Your task to perform on an android device: turn on data saver in the chrome app Image 0: 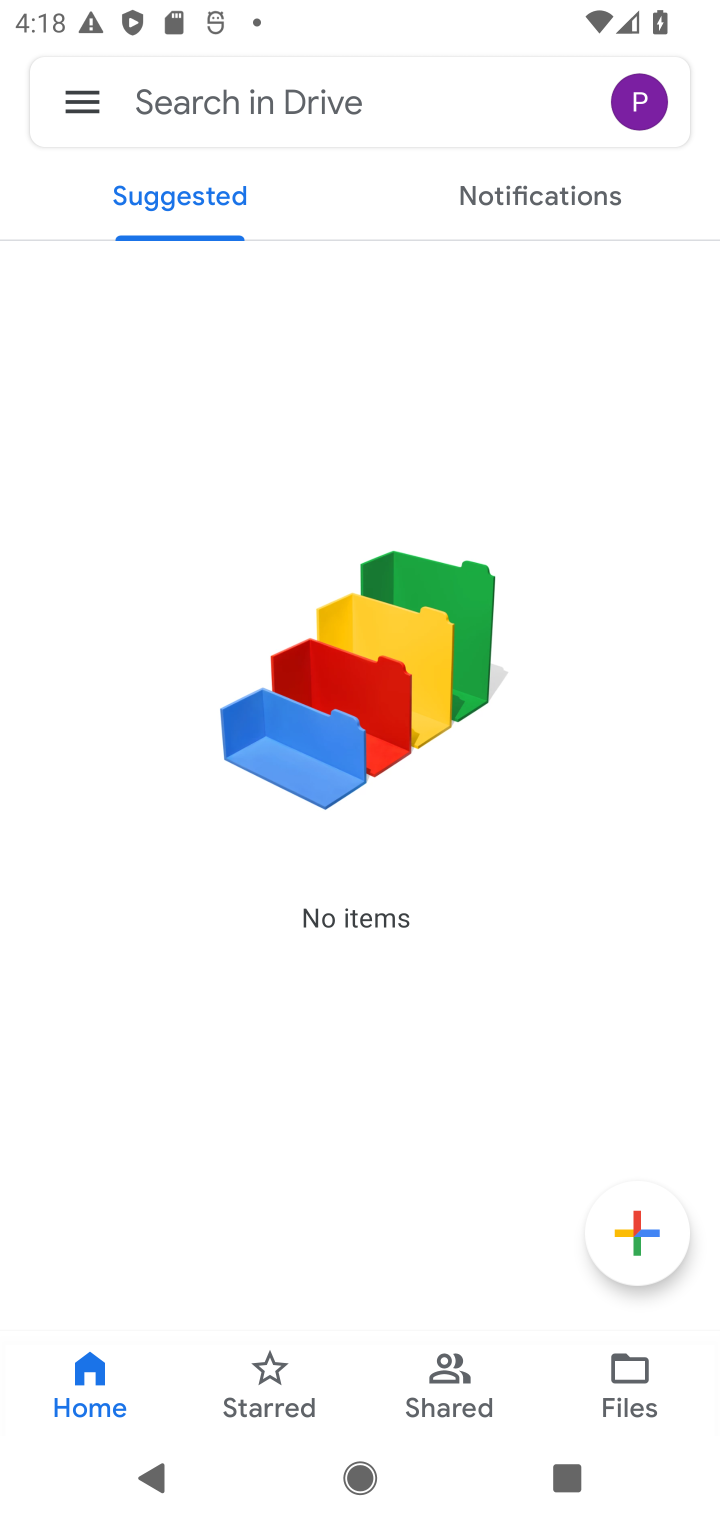
Step 0: press back button
Your task to perform on an android device: turn on data saver in the chrome app Image 1: 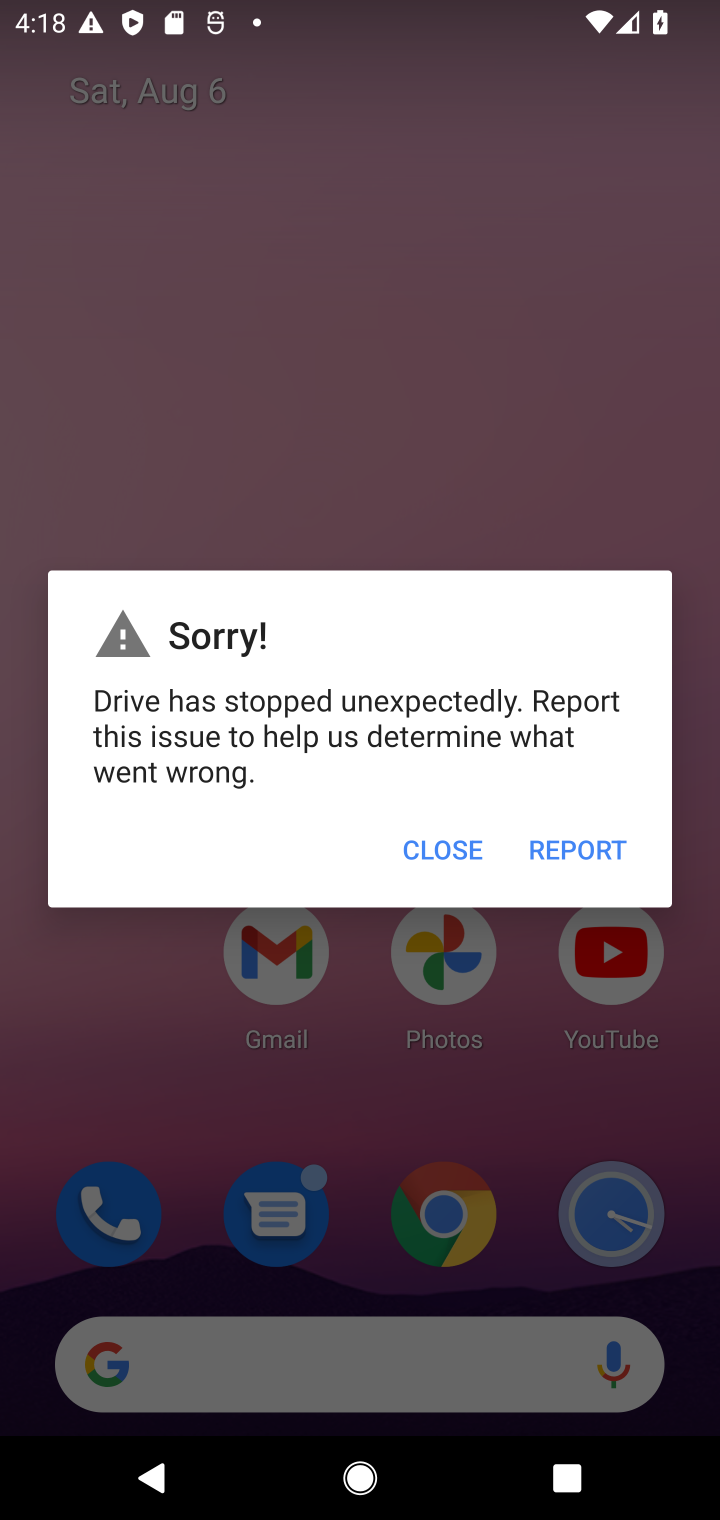
Step 1: press home button
Your task to perform on an android device: turn on data saver in the chrome app Image 2: 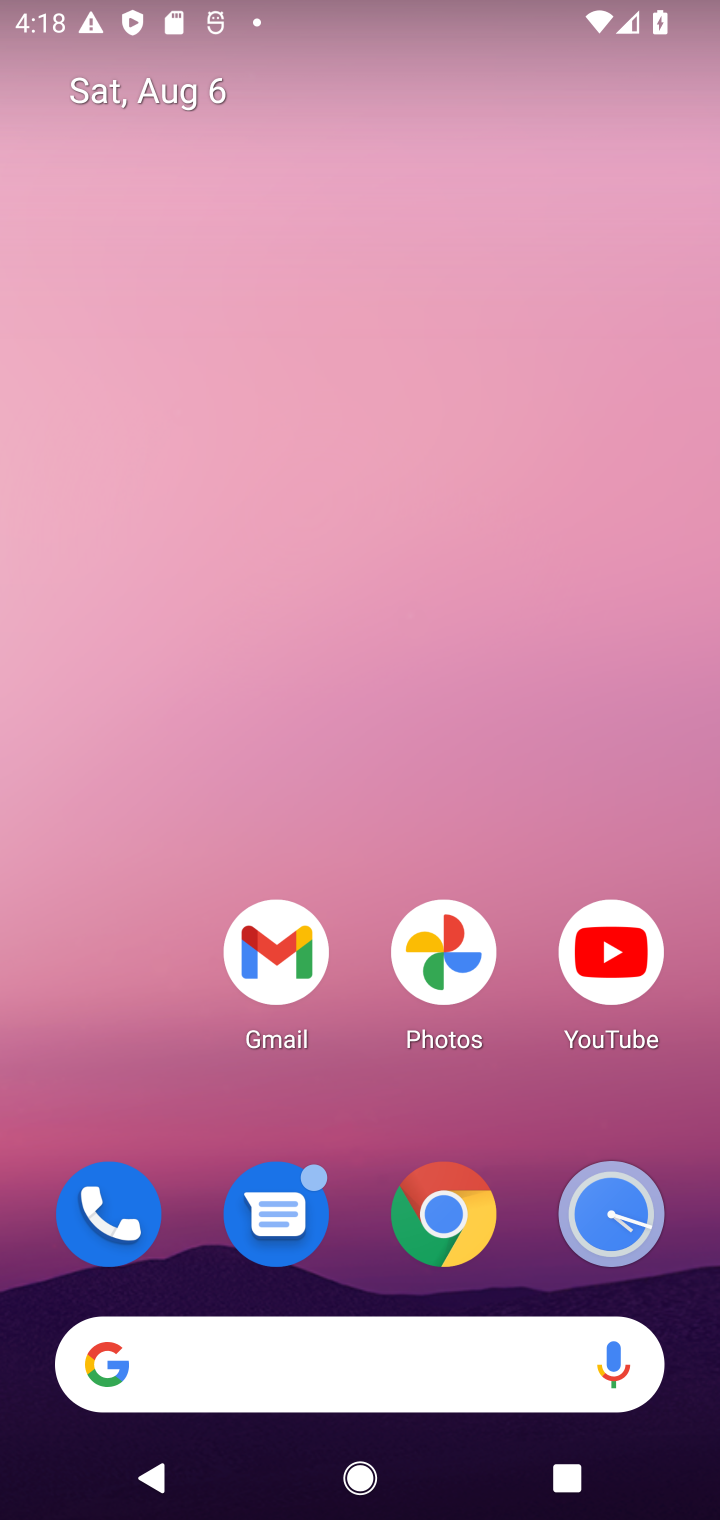
Step 2: click (444, 1226)
Your task to perform on an android device: turn on data saver in the chrome app Image 3: 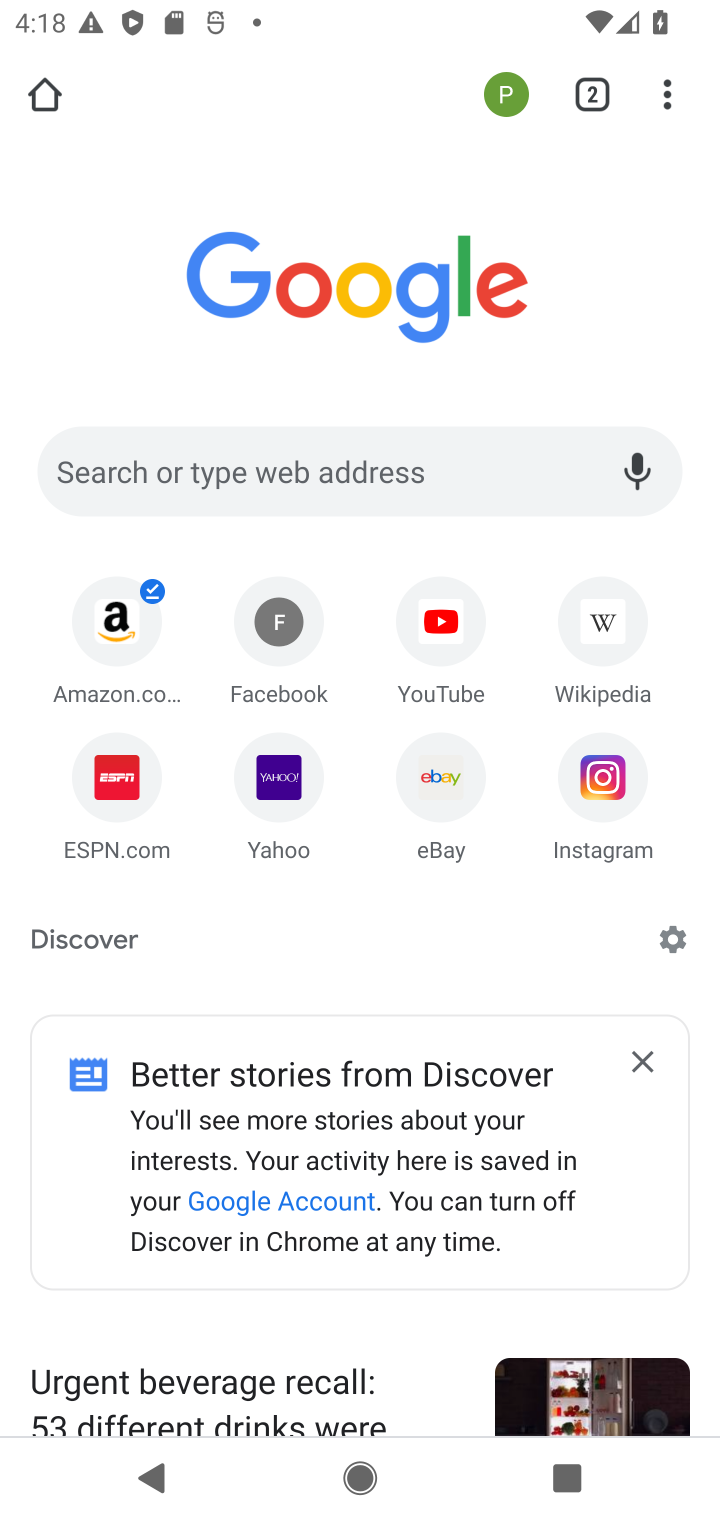
Step 3: click (673, 92)
Your task to perform on an android device: turn on data saver in the chrome app Image 4: 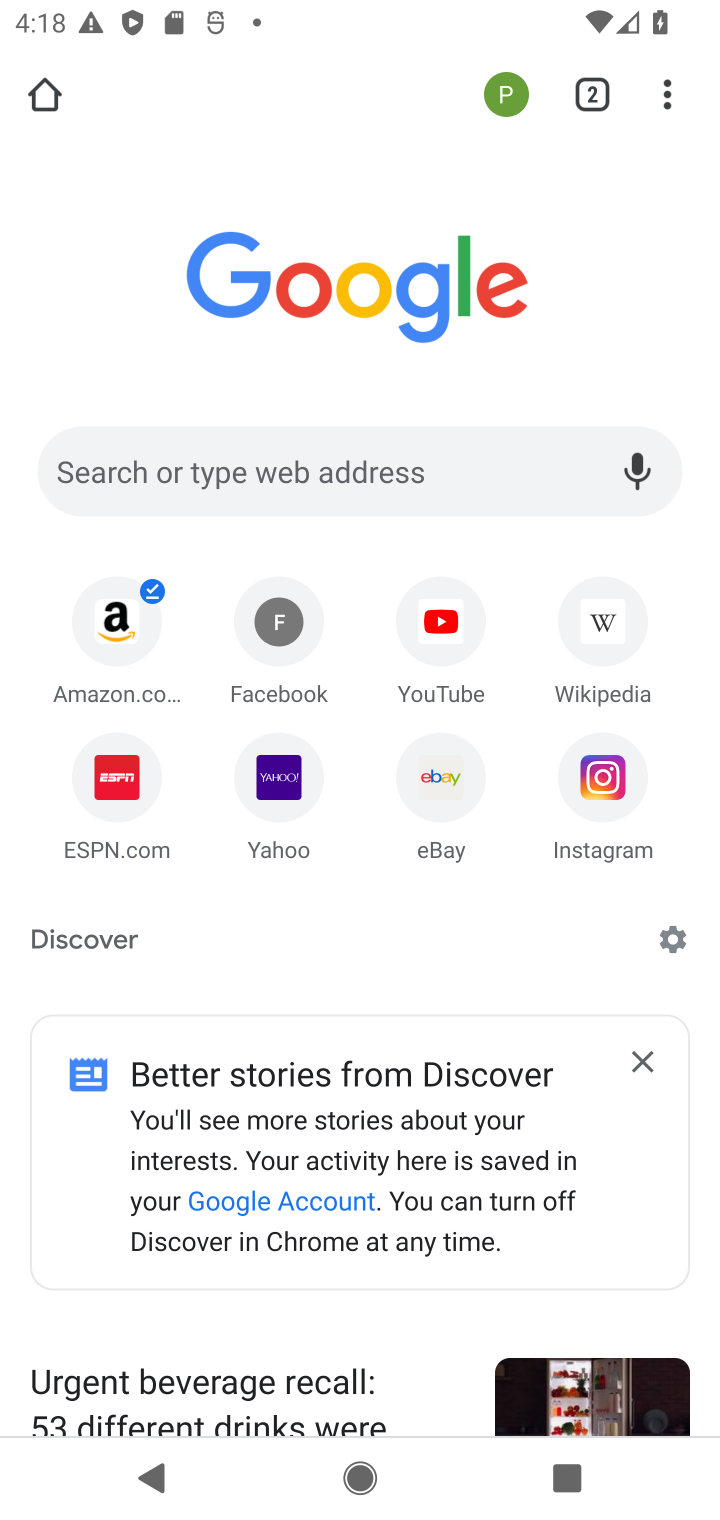
Step 4: click (665, 96)
Your task to perform on an android device: turn on data saver in the chrome app Image 5: 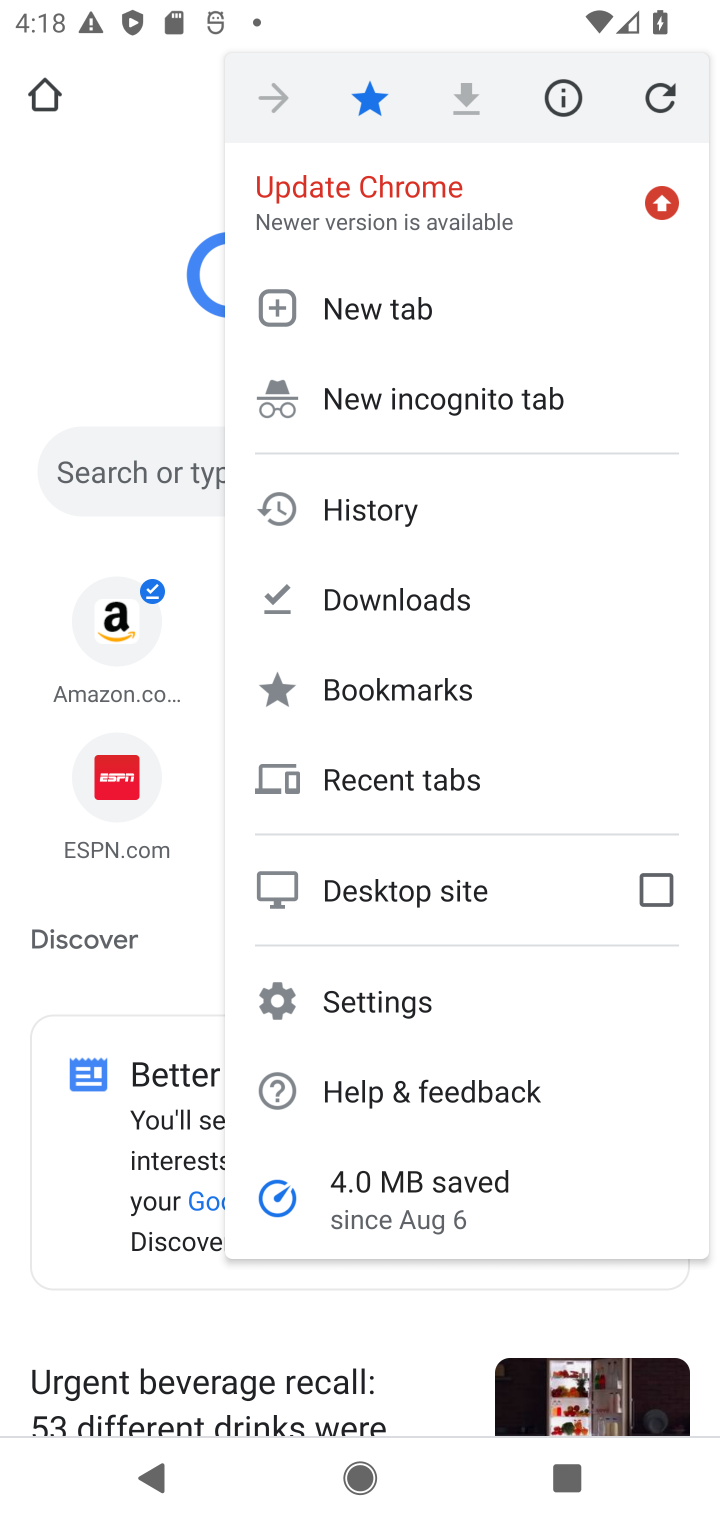
Step 5: click (350, 996)
Your task to perform on an android device: turn on data saver in the chrome app Image 6: 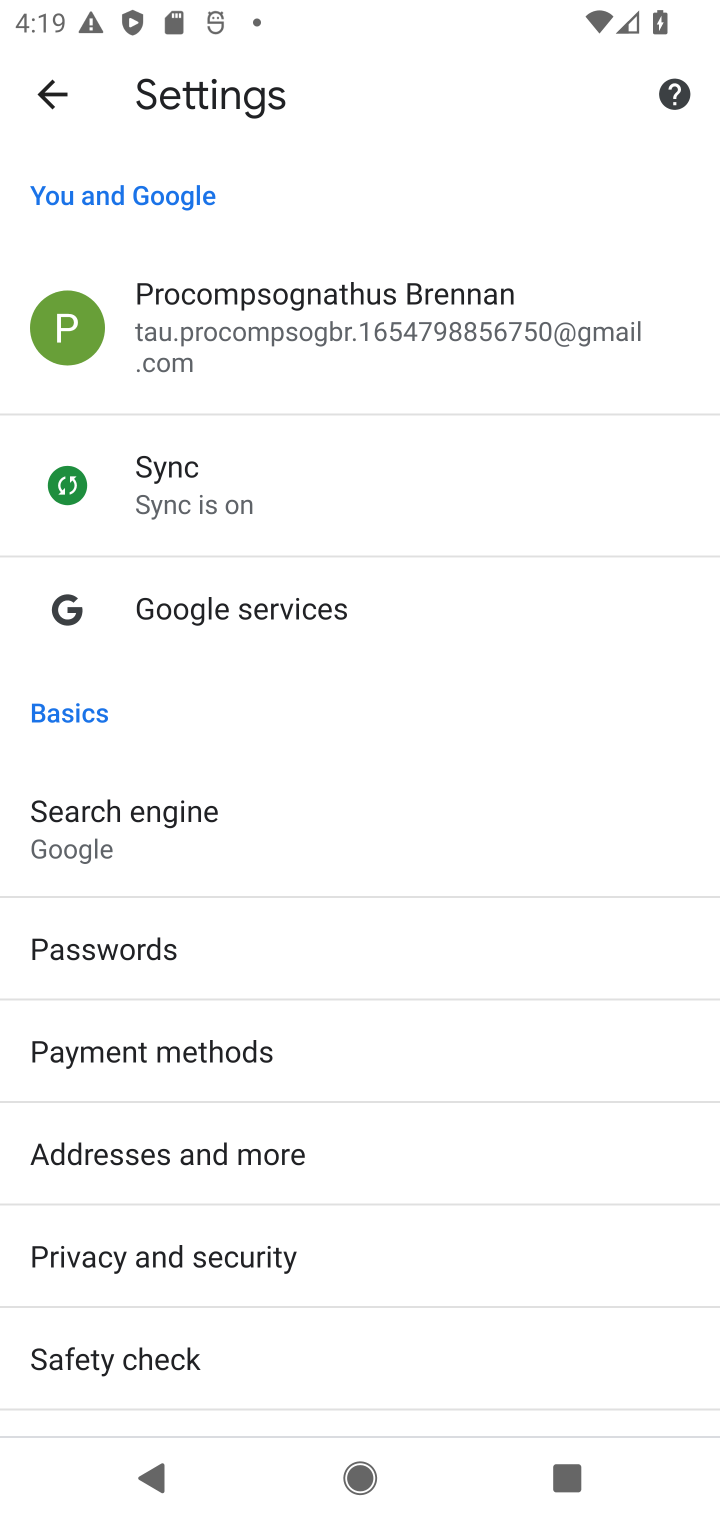
Step 6: drag from (349, 1328) to (372, 1012)
Your task to perform on an android device: turn on data saver in the chrome app Image 7: 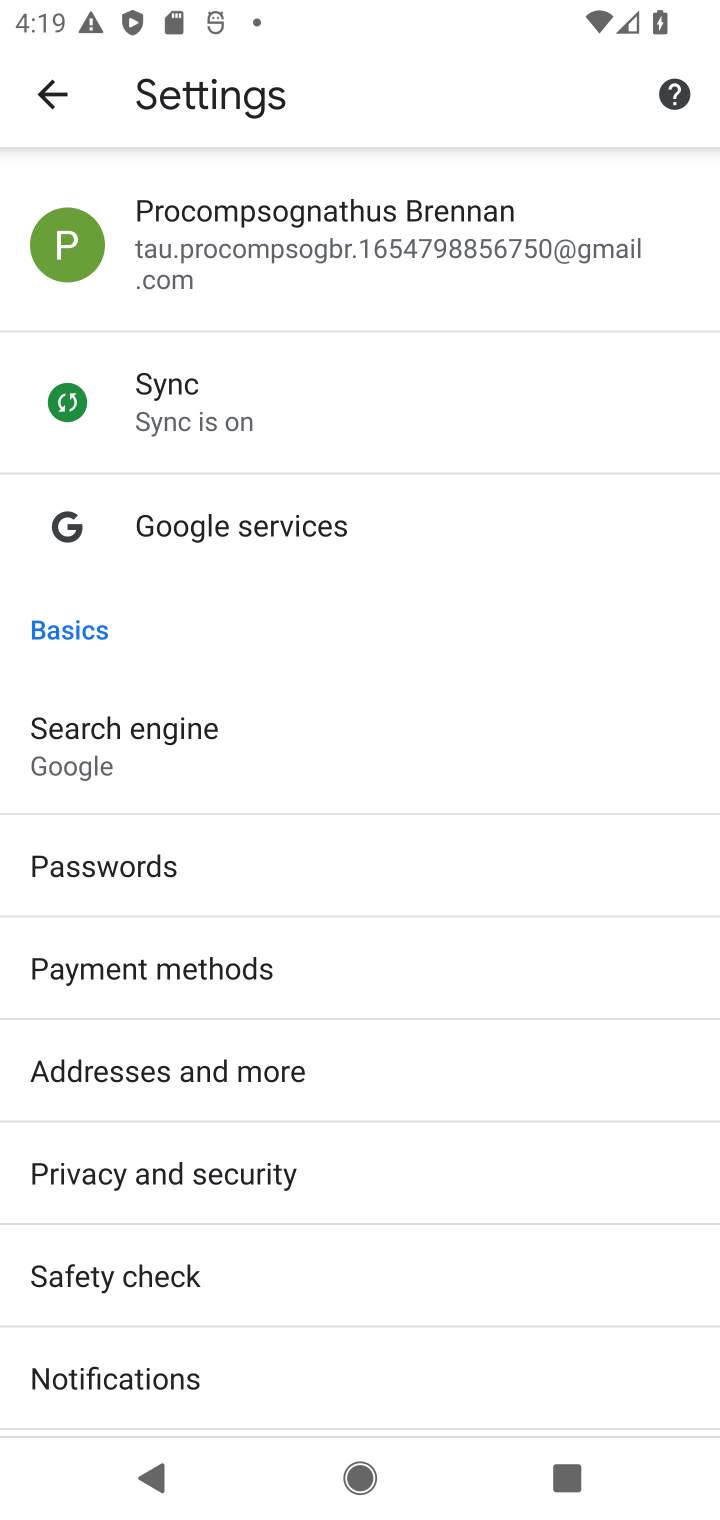
Step 7: drag from (305, 1324) to (305, 750)
Your task to perform on an android device: turn on data saver in the chrome app Image 8: 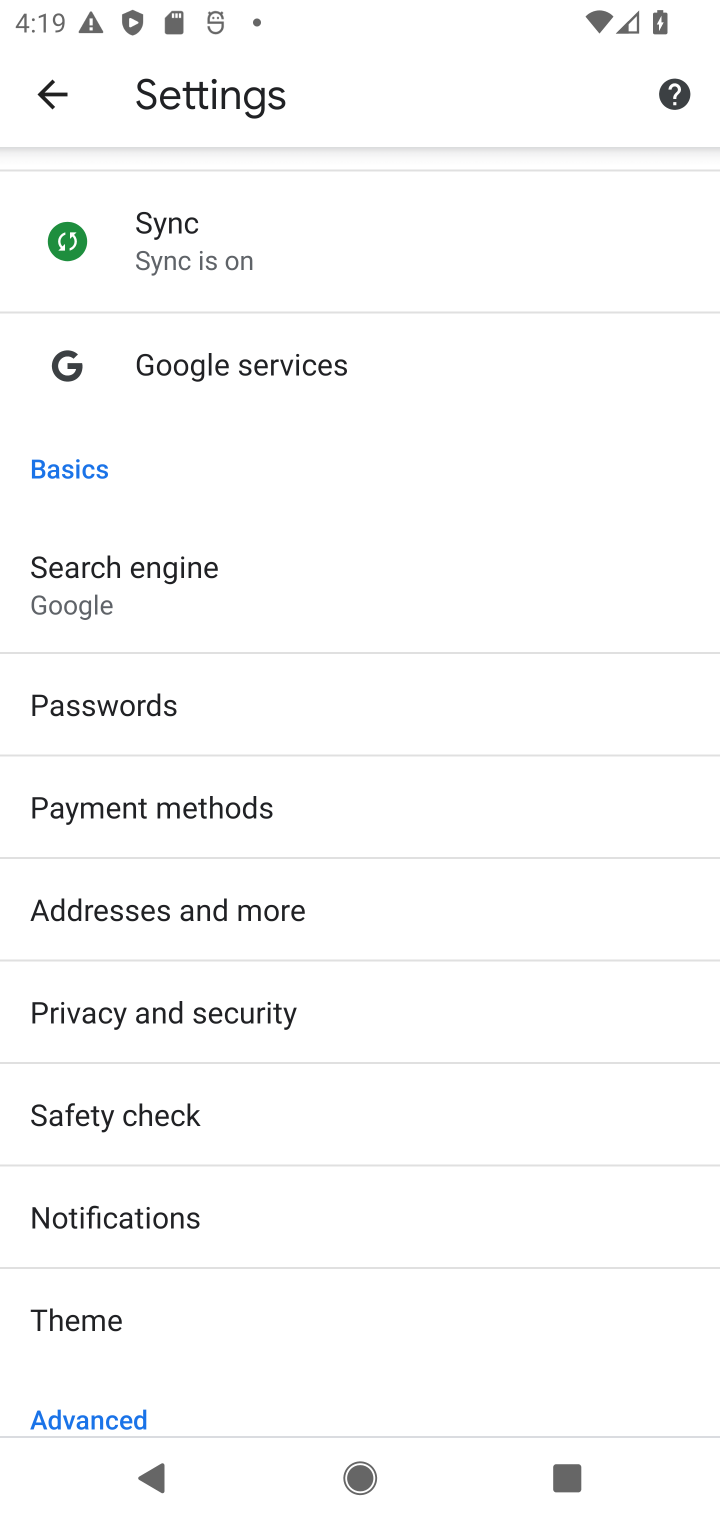
Step 8: drag from (175, 1242) to (268, 939)
Your task to perform on an android device: turn on data saver in the chrome app Image 9: 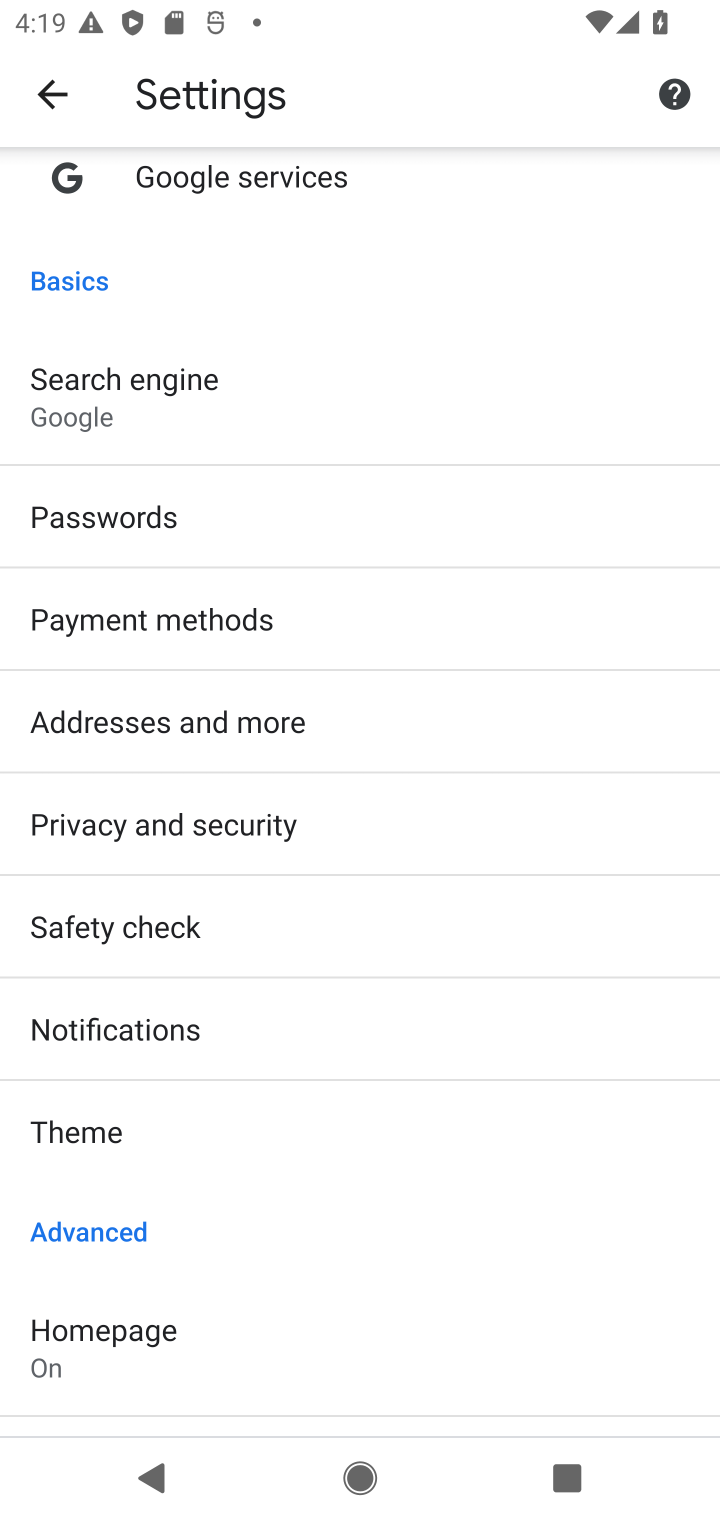
Step 9: drag from (311, 1023) to (457, 578)
Your task to perform on an android device: turn on data saver in the chrome app Image 10: 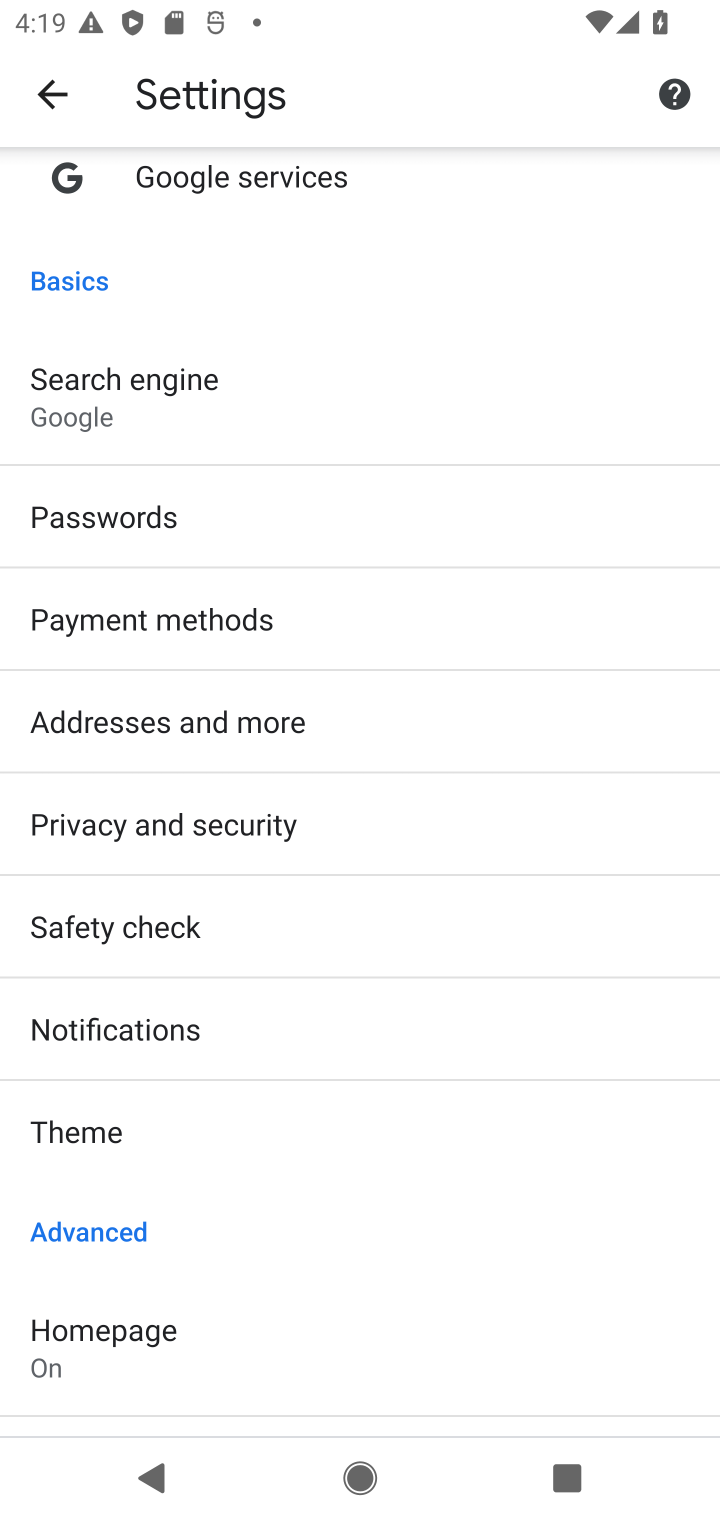
Step 10: drag from (295, 1270) to (333, 768)
Your task to perform on an android device: turn on data saver in the chrome app Image 11: 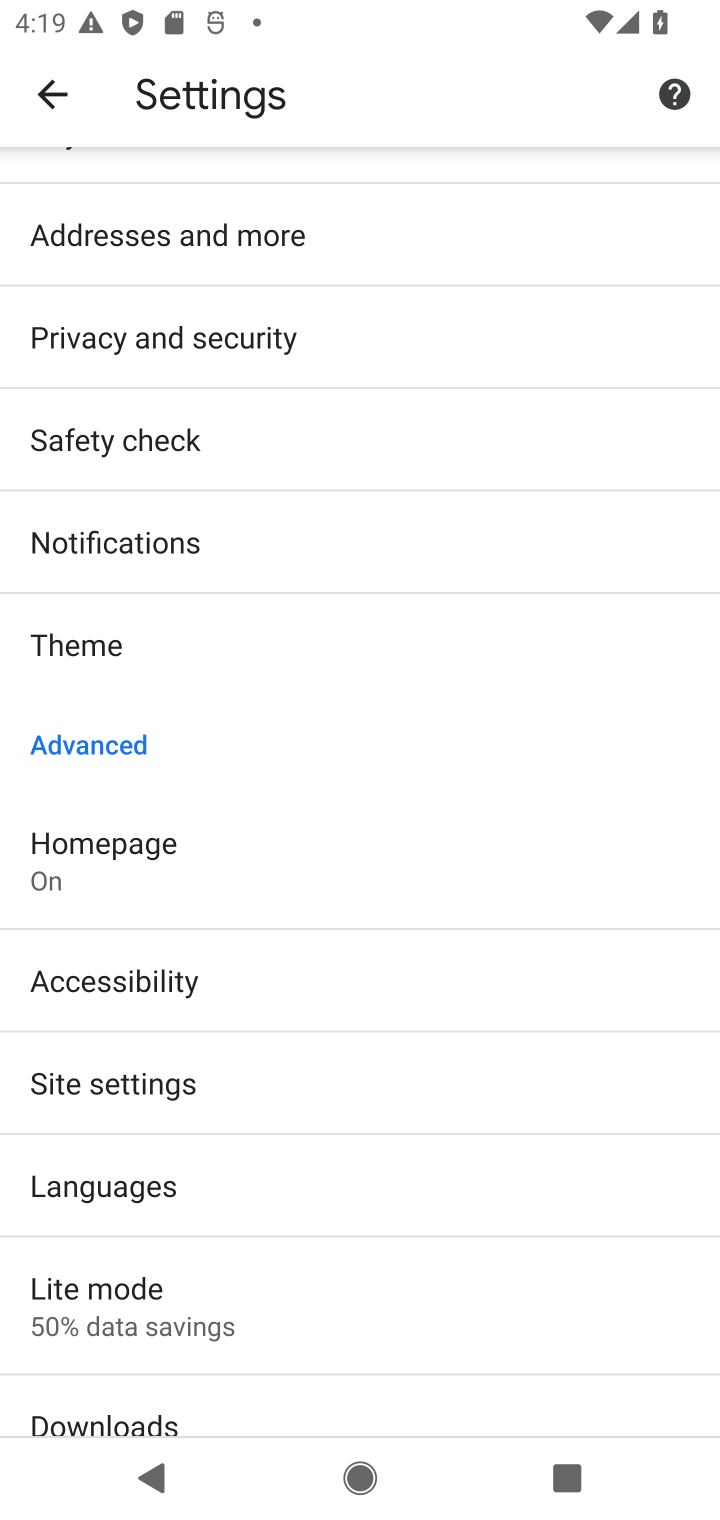
Step 11: click (170, 1086)
Your task to perform on an android device: turn on data saver in the chrome app Image 12: 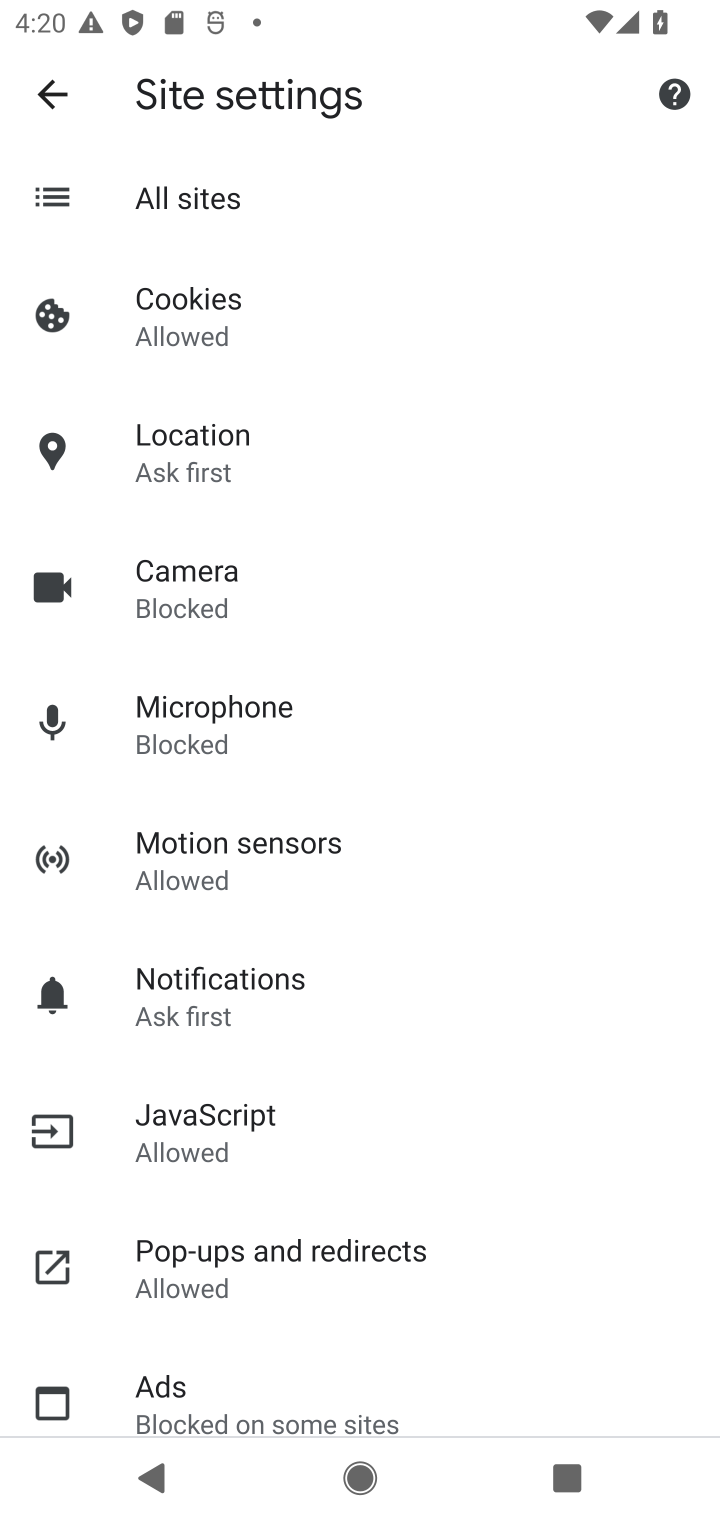
Step 12: drag from (296, 1061) to (296, 947)
Your task to perform on an android device: turn on data saver in the chrome app Image 13: 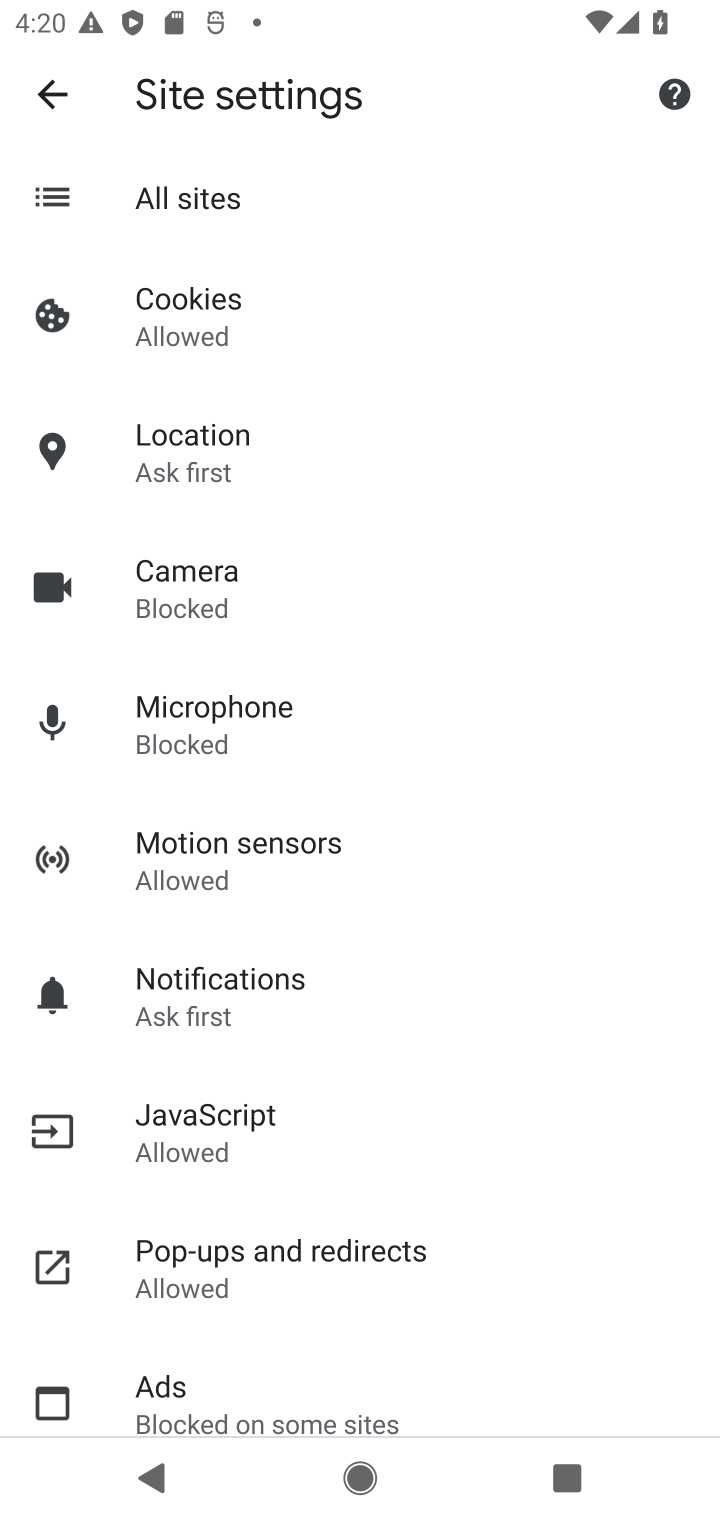
Step 13: click (50, 81)
Your task to perform on an android device: turn on data saver in the chrome app Image 14: 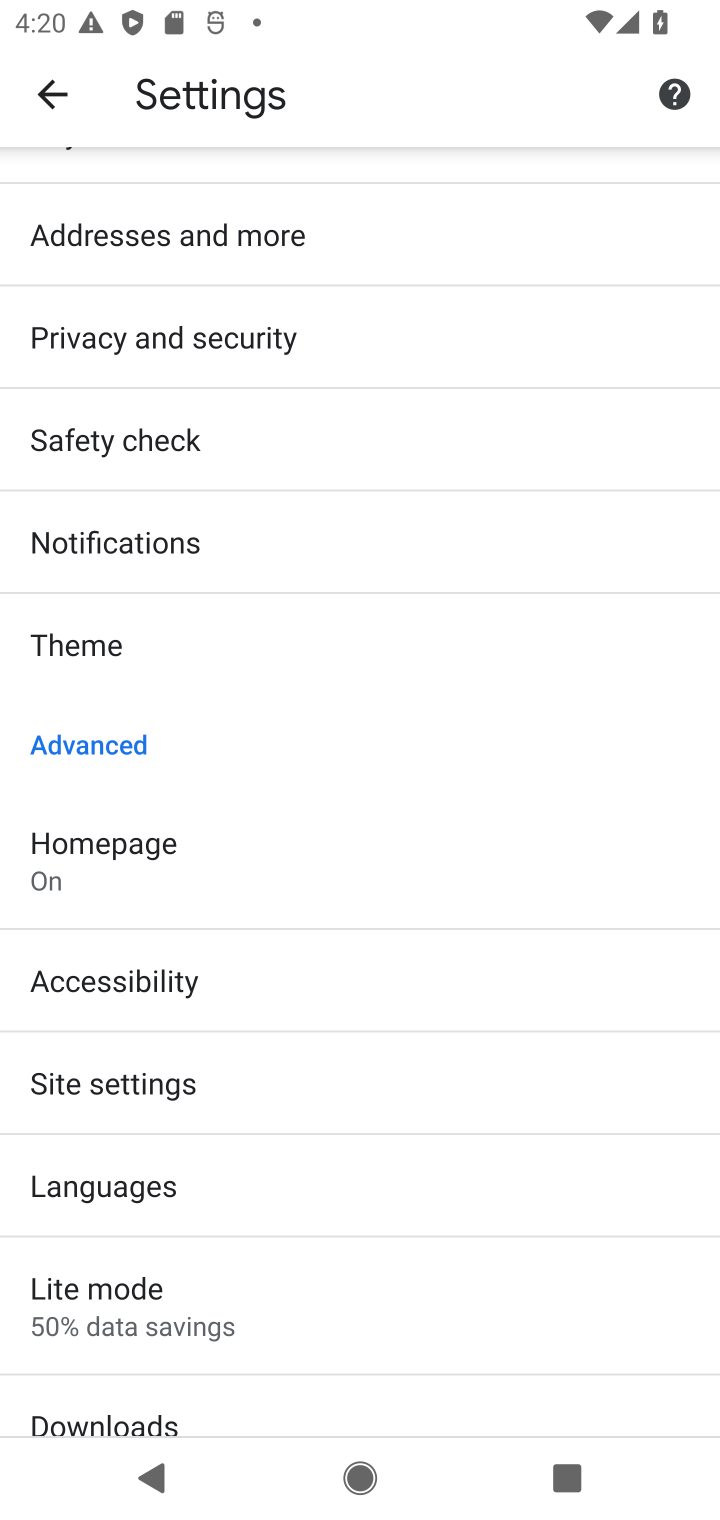
Step 14: click (181, 1295)
Your task to perform on an android device: turn on data saver in the chrome app Image 15: 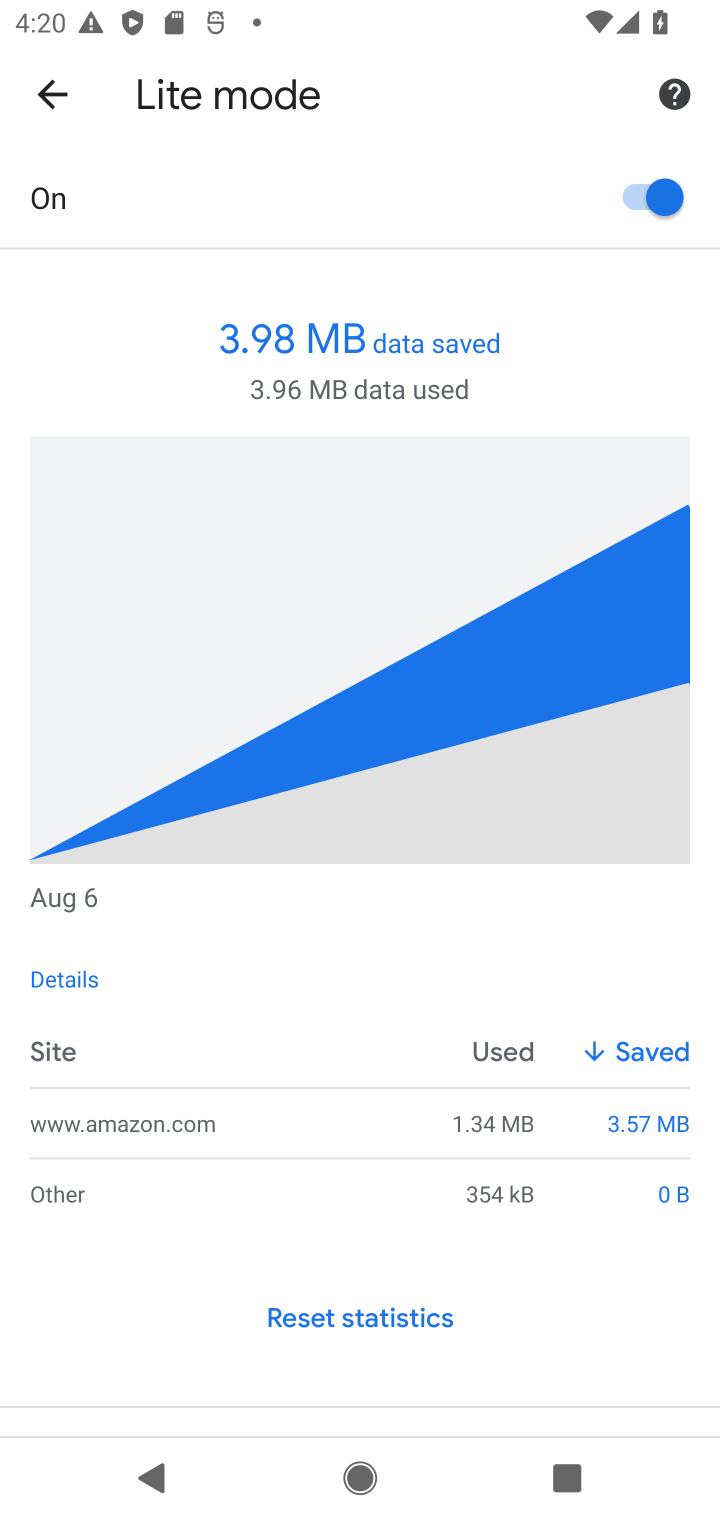
Step 15: task complete